Your task to perform on an android device: When is my next meeting? Image 0: 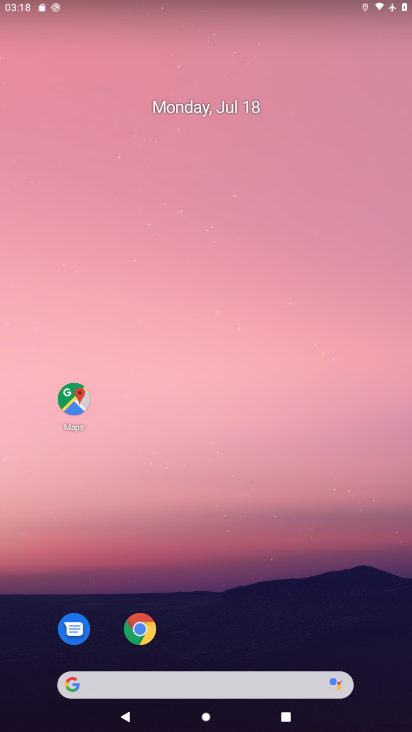
Step 0: drag from (320, 644) to (333, 192)
Your task to perform on an android device: When is my next meeting? Image 1: 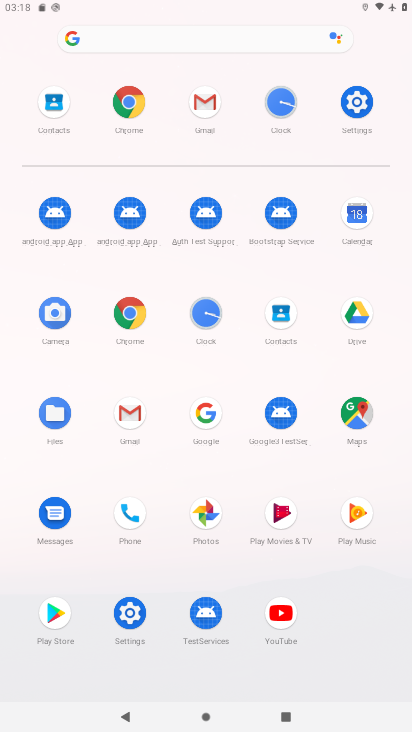
Step 1: click (357, 229)
Your task to perform on an android device: When is my next meeting? Image 2: 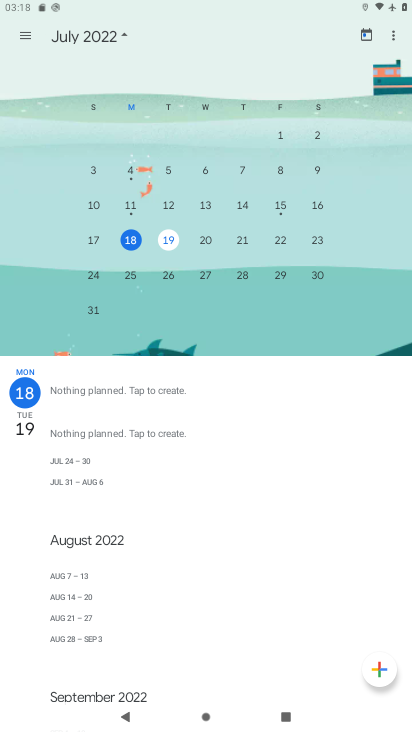
Step 2: task complete